Your task to perform on an android device: Go to notification settings Image 0: 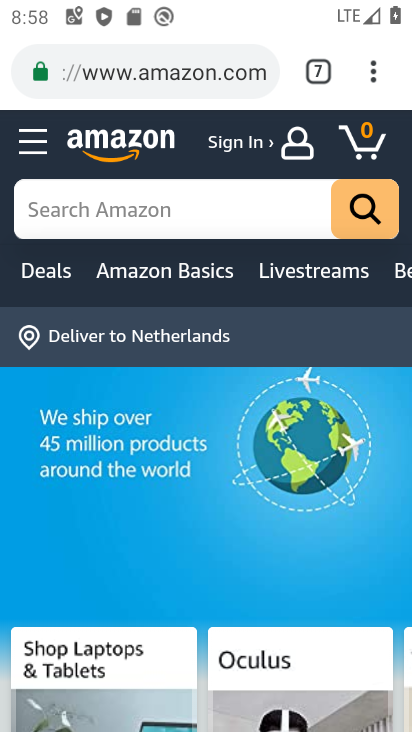
Step 0: press home button
Your task to perform on an android device: Go to notification settings Image 1: 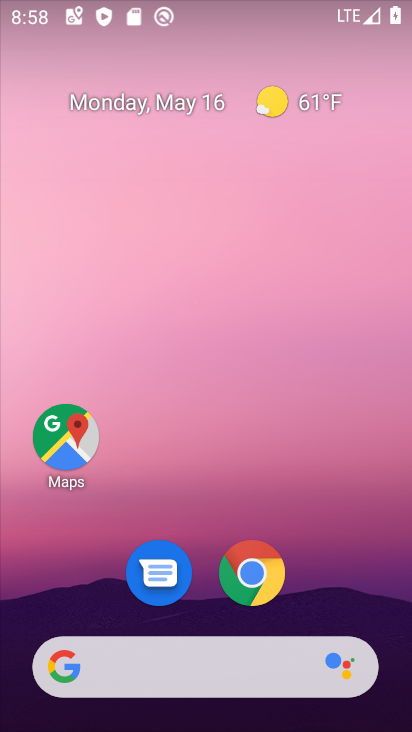
Step 1: drag from (202, 720) to (219, 69)
Your task to perform on an android device: Go to notification settings Image 2: 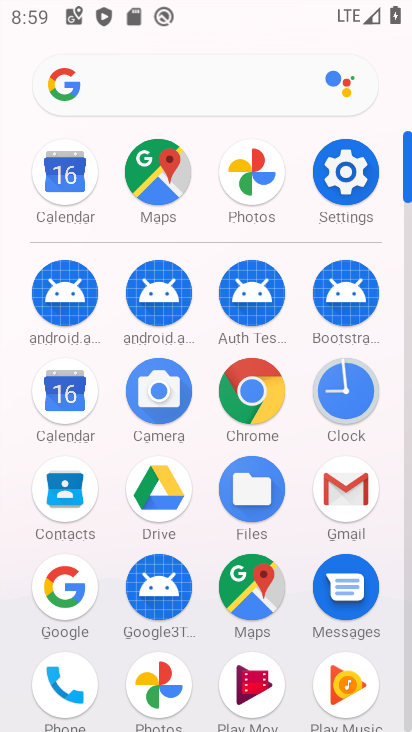
Step 2: click (346, 173)
Your task to perform on an android device: Go to notification settings Image 3: 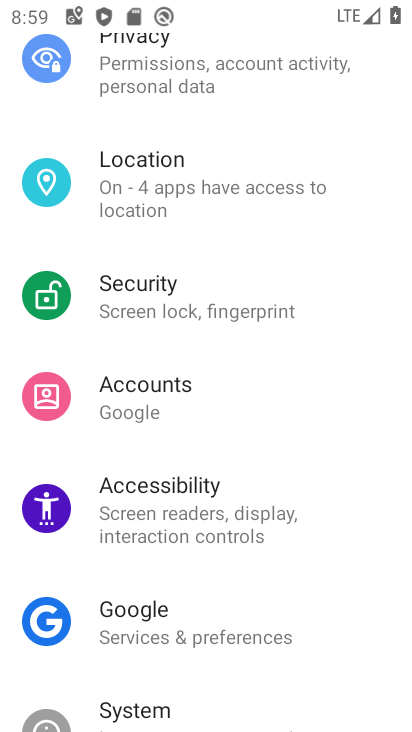
Step 3: drag from (223, 143) to (204, 495)
Your task to perform on an android device: Go to notification settings Image 4: 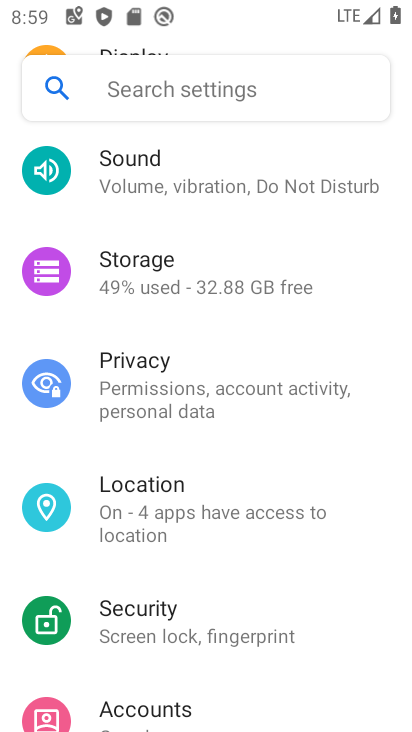
Step 4: drag from (198, 222) to (195, 459)
Your task to perform on an android device: Go to notification settings Image 5: 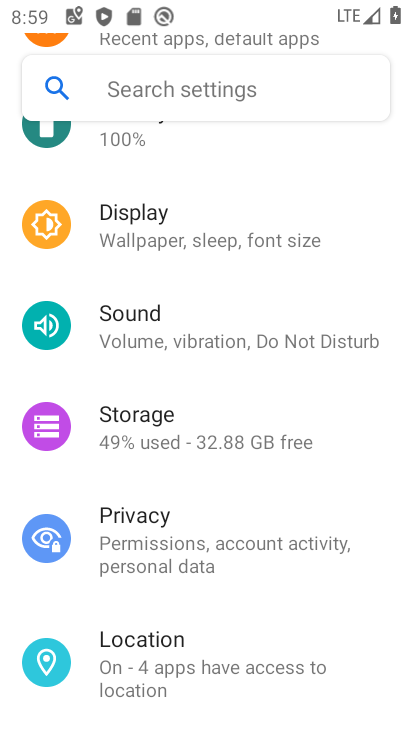
Step 5: drag from (204, 262) to (217, 499)
Your task to perform on an android device: Go to notification settings Image 6: 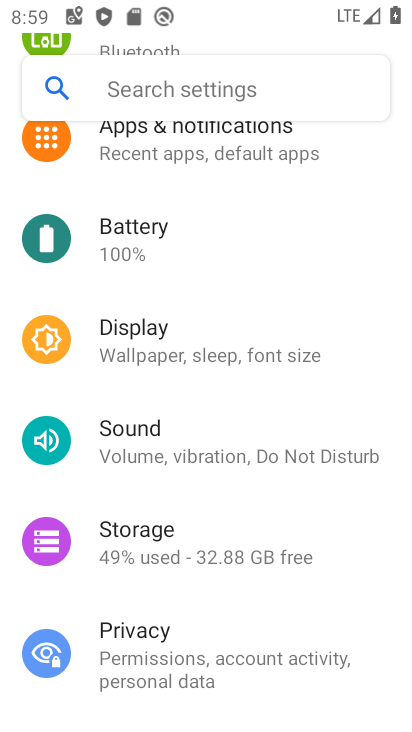
Step 6: drag from (222, 190) to (204, 555)
Your task to perform on an android device: Go to notification settings Image 7: 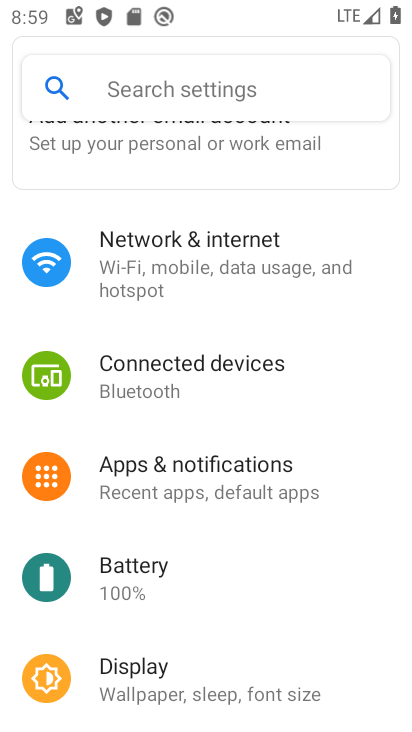
Step 7: click (196, 480)
Your task to perform on an android device: Go to notification settings Image 8: 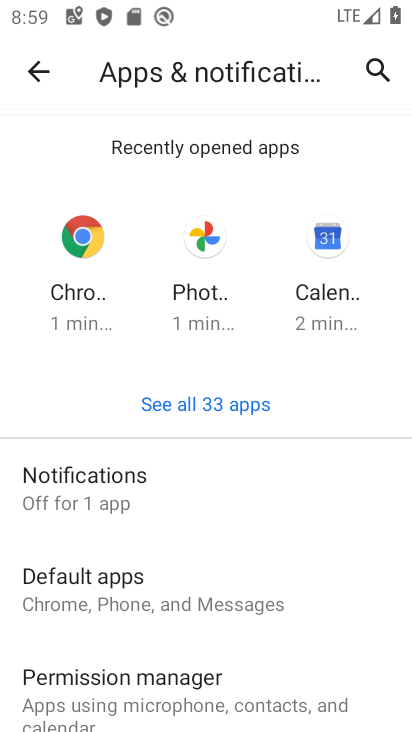
Step 8: click (55, 489)
Your task to perform on an android device: Go to notification settings Image 9: 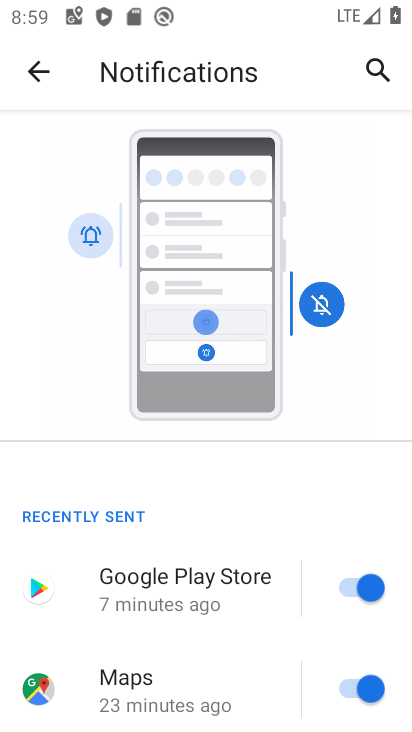
Step 9: task complete